Your task to perform on an android device: Go to Google maps Image 0: 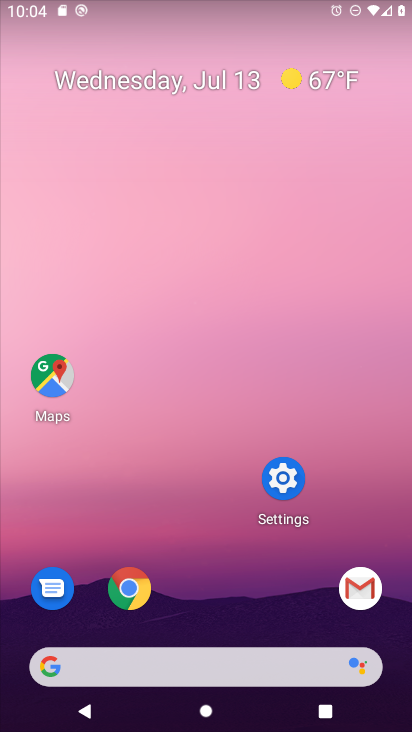
Step 0: press home button
Your task to perform on an android device: Go to Google maps Image 1: 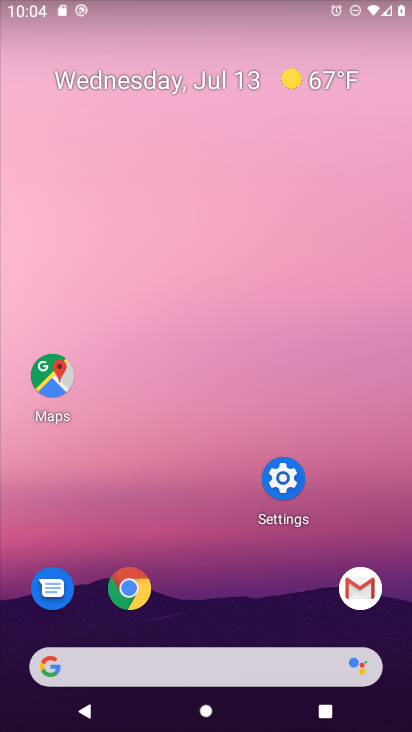
Step 1: click (37, 355)
Your task to perform on an android device: Go to Google maps Image 2: 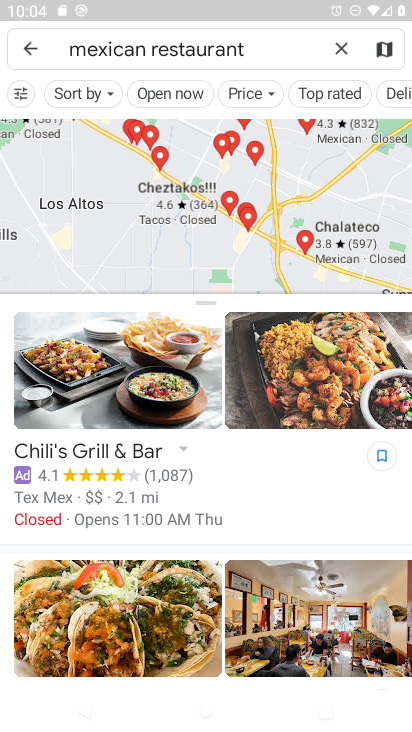
Step 2: click (19, 49)
Your task to perform on an android device: Go to Google maps Image 3: 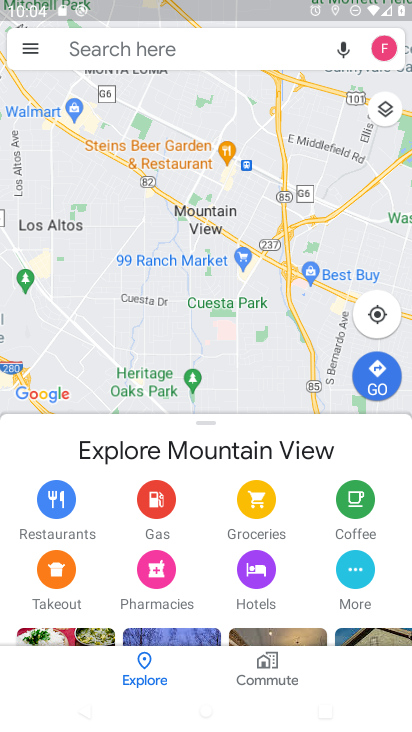
Step 3: click (187, 308)
Your task to perform on an android device: Go to Google maps Image 4: 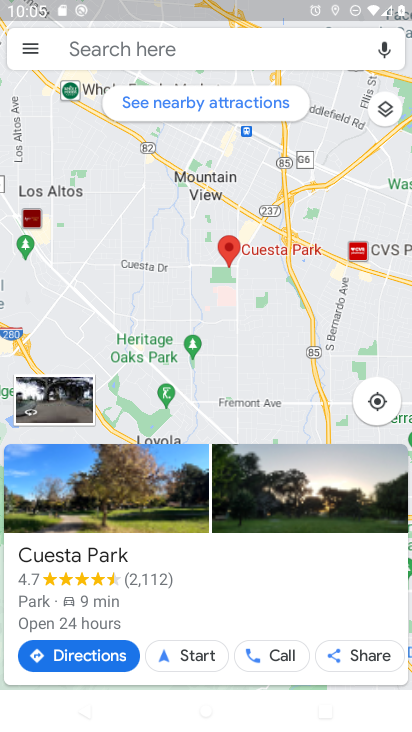
Step 4: task complete